Your task to perform on an android device: Open Google Chrome Image 0: 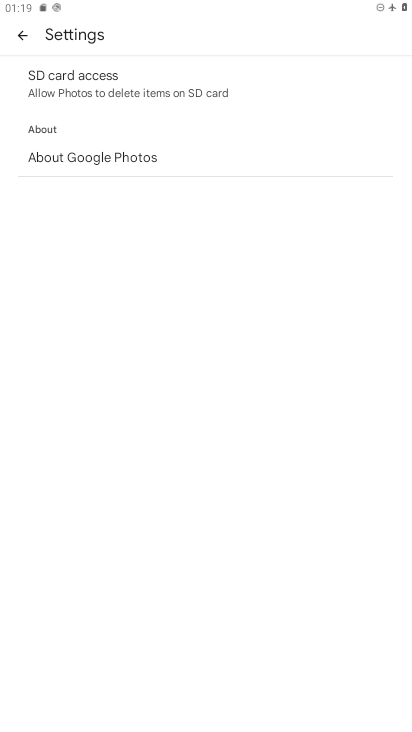
Step 0: press home button
Your task to perform on an android device: Open Google Chrome Image 1: 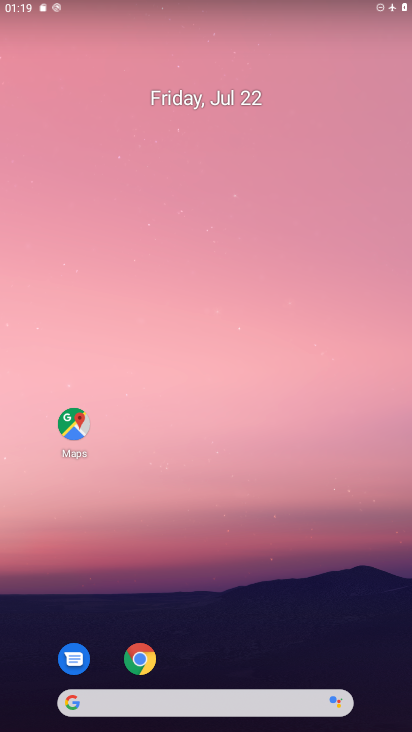
Step 1: click (144, 658)
Your task to perform on an android device: Open Google Chrome Image 2: 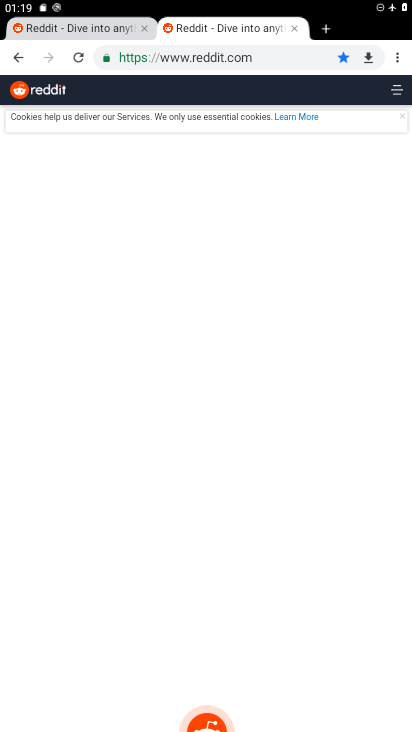
Step 2: task complete